Your task to perform on an android device: Search for energizer triple a on bestbuy, select the first entry, and add it to the cart. Image 0: 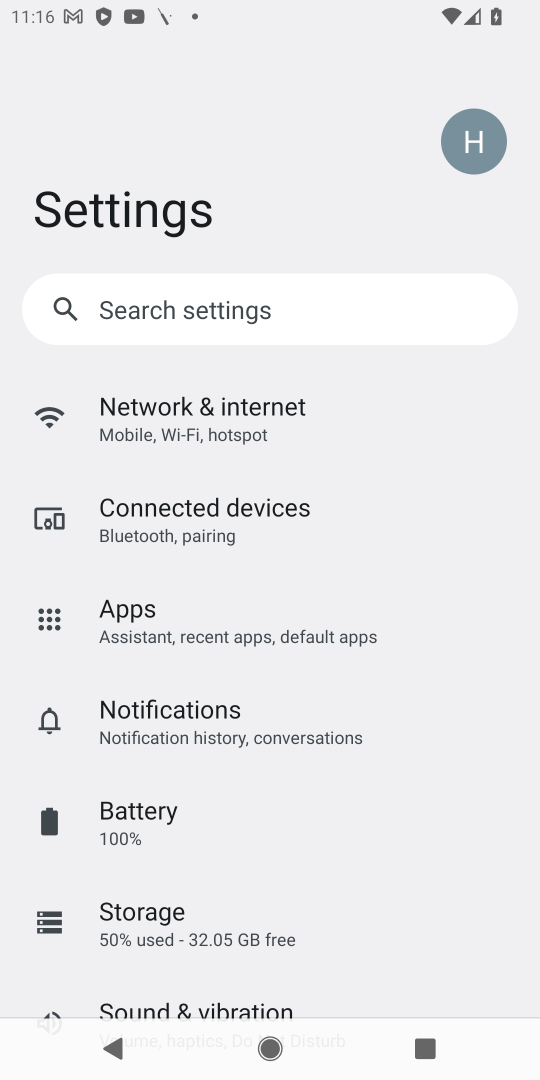
Step 0: press home button
Your task to perform on an android device: Search for energizer triple a on bestbuy, select the first entry, and add it to the cart. Image 1: 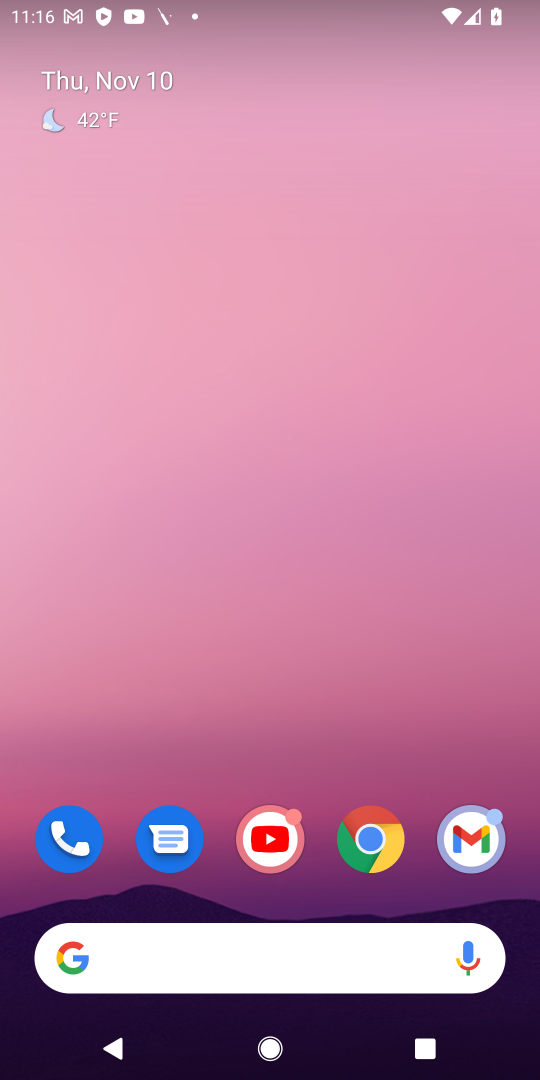
Step 1: click (378, 838)
Your task to perform on an android device: Search for energizer triple a on bestbuy, select the first entry, and add it to the cart. Image 2: 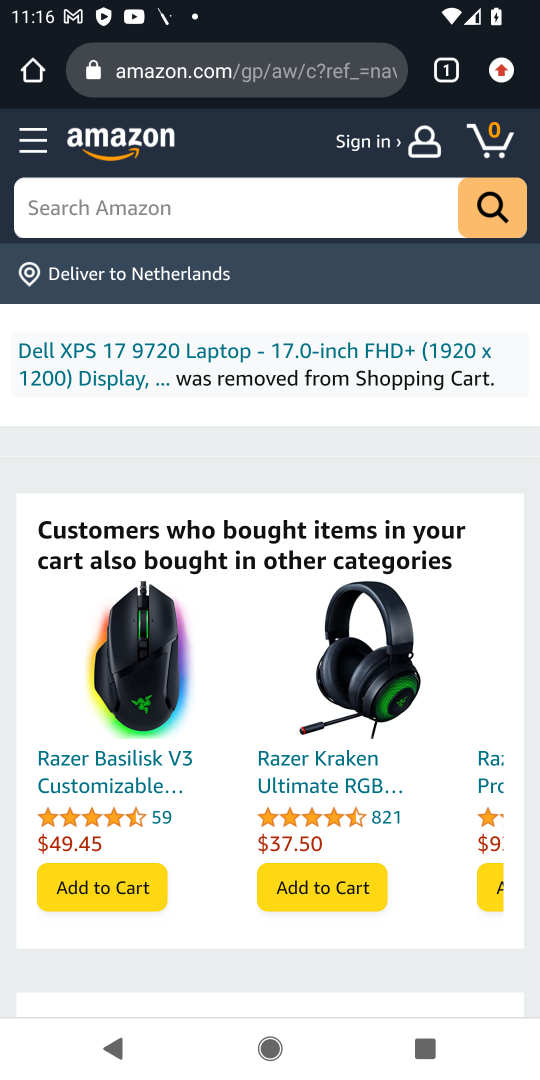
Step 2: click (203, 60)
Your task to perform on an android device: Search for energizer triple a on bestbuy, select the first entry, and add it to the cart. Image 3: 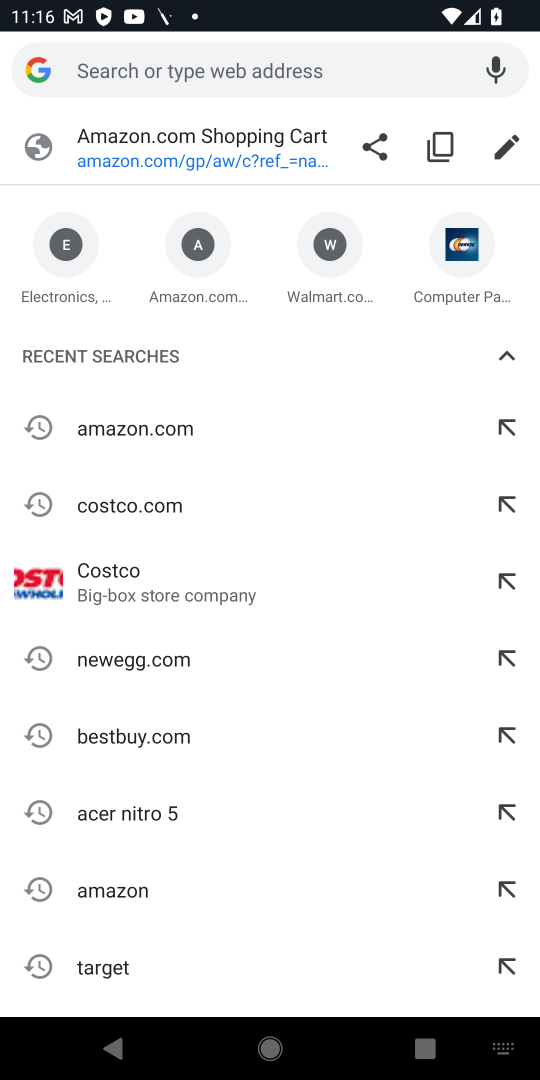
Step 3: click (147, 730)
Your task to perform on an android device: Search for energizer triple a on bestbuy, select the first entry, and add it to the cart. Image 4: 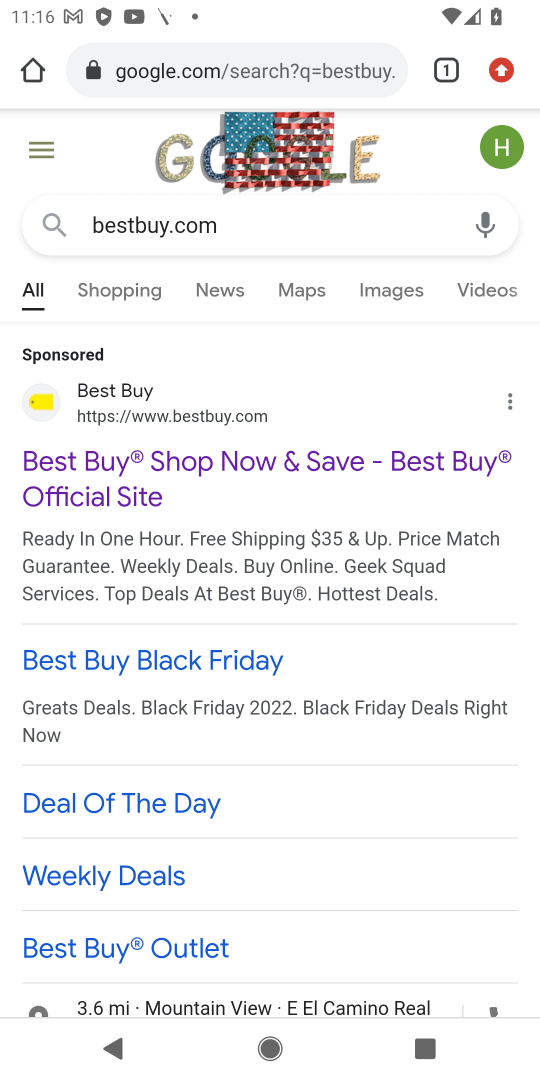
Step 4: click (157, 407)
Your task to perform on an android device: Search for energizer triple a on bestbuy, select the first entry, and add it to the cart. Image 5: 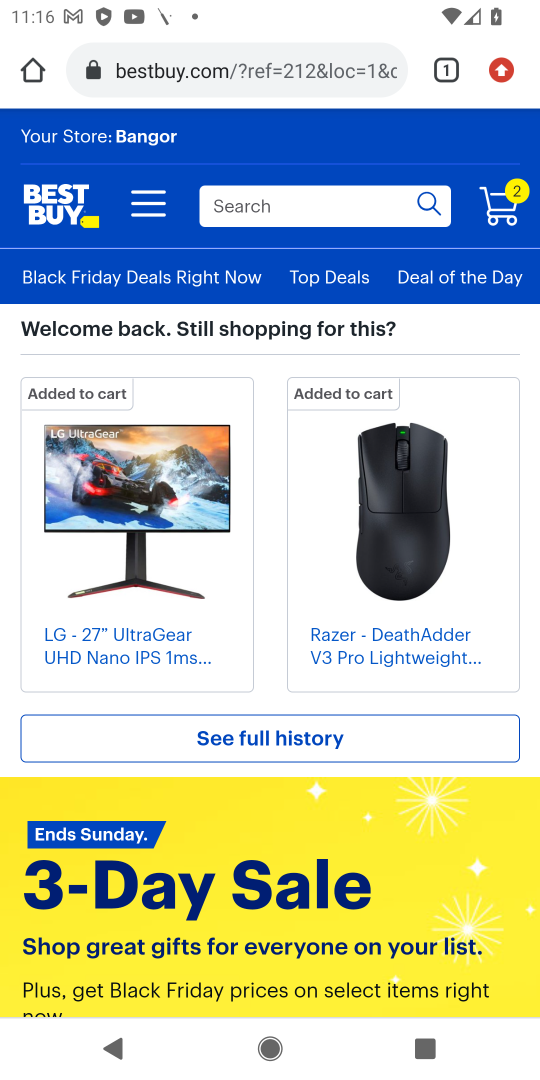
Step 5: click (331, 192)
Your task to perform on an android device: Search for energizer triple a on bestbuy, select the first entry, and add it to the cart. Image 6: 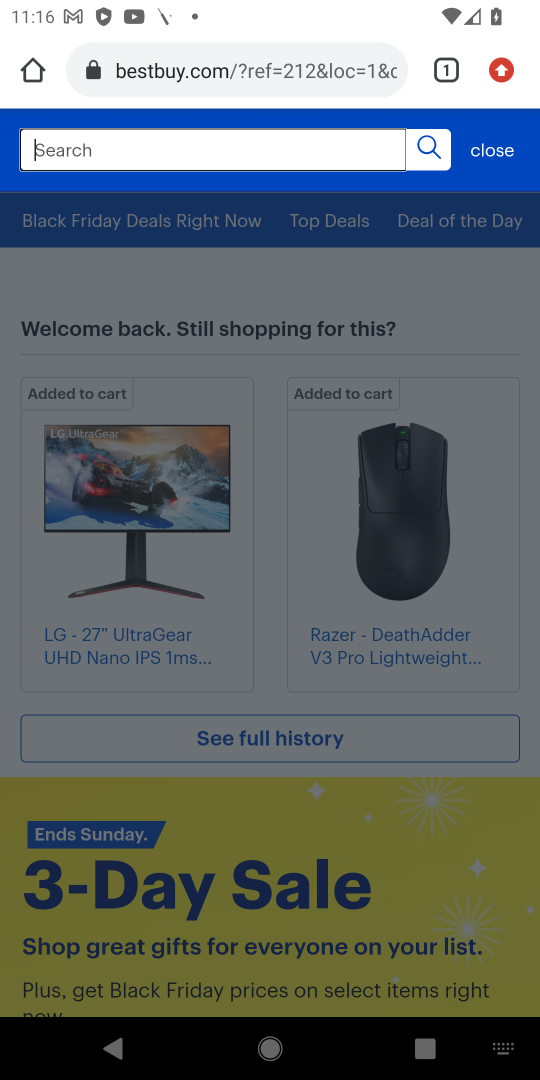
Step 6: type "energizer triple a "
Your task to perform on an android device: Search for energizer triple a on bestbuy, select the first entry, and add it to the cart. Image 7: 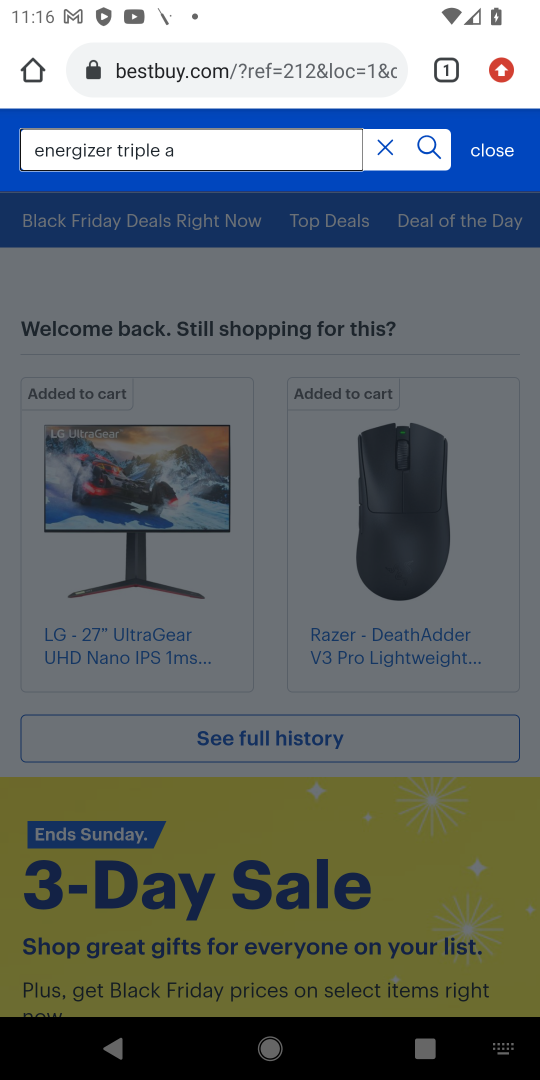
Step 7: click (419, 138)
Your task to perform on an android device: Search for energizer triple a on bestbuy, select the first entry, and add it to the cart. Image 8: 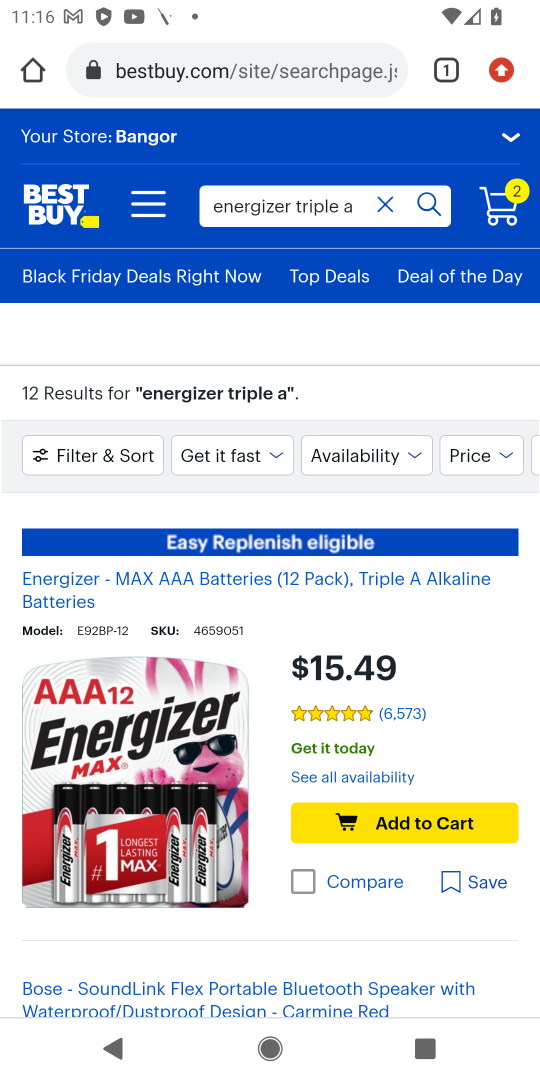
Step 8: click (172, 721)
Your task to perform on an android device: Search for energizer triple a on bestbuy, select the first entry, and add it to the cart. Image 9: 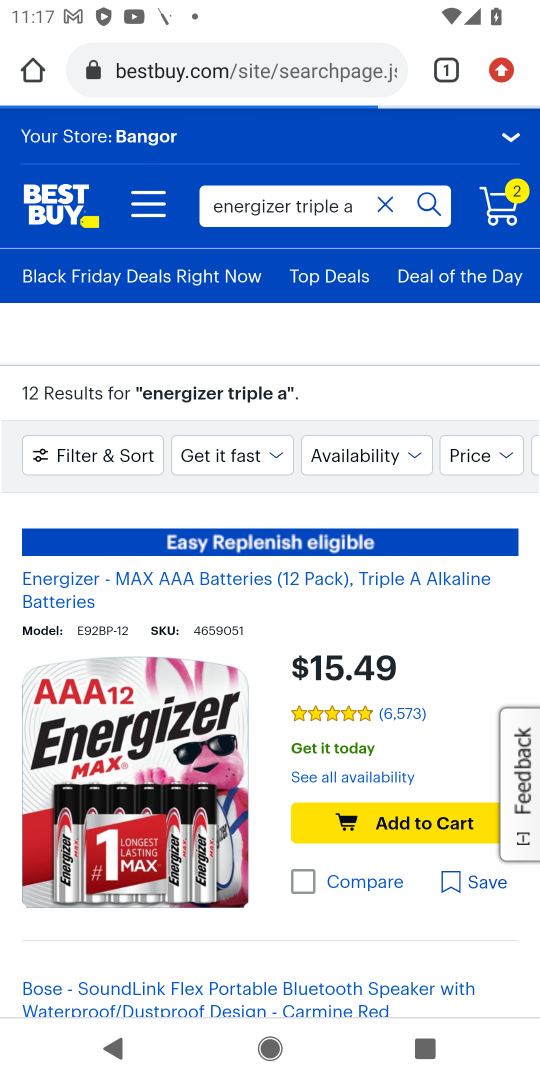
Step 9: click (167, 753)
Your task to perform on an android device: Search for energizer triple a on bestbuy, select the first entry, and add it to the cart. Image 10: 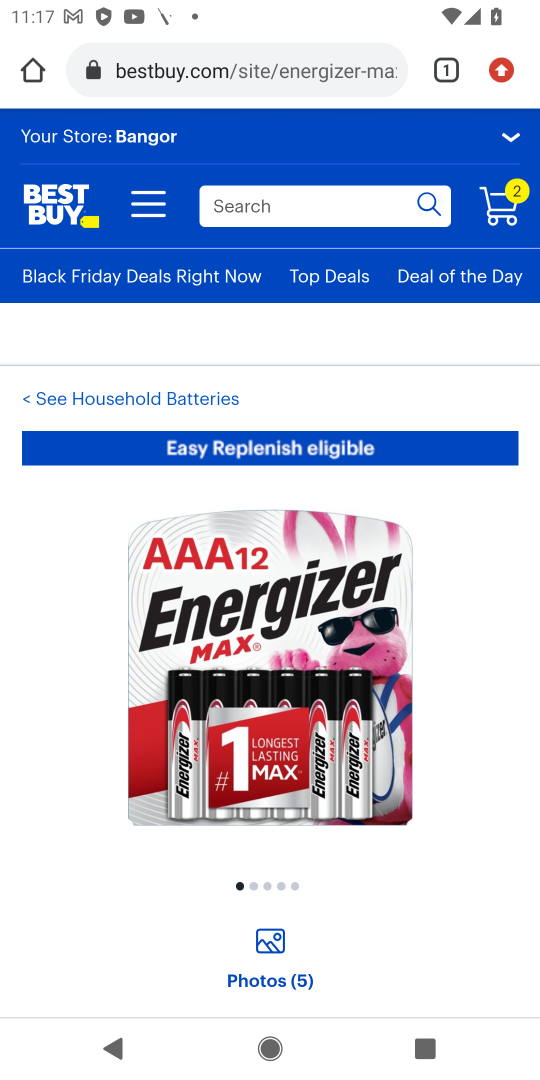
Step 10: drag from (446, 779) to (533, 208)
Your task to perform on an android device: Search for energizer triple a on bestbuy, select the first entry, and add it to the cart. Image 11: 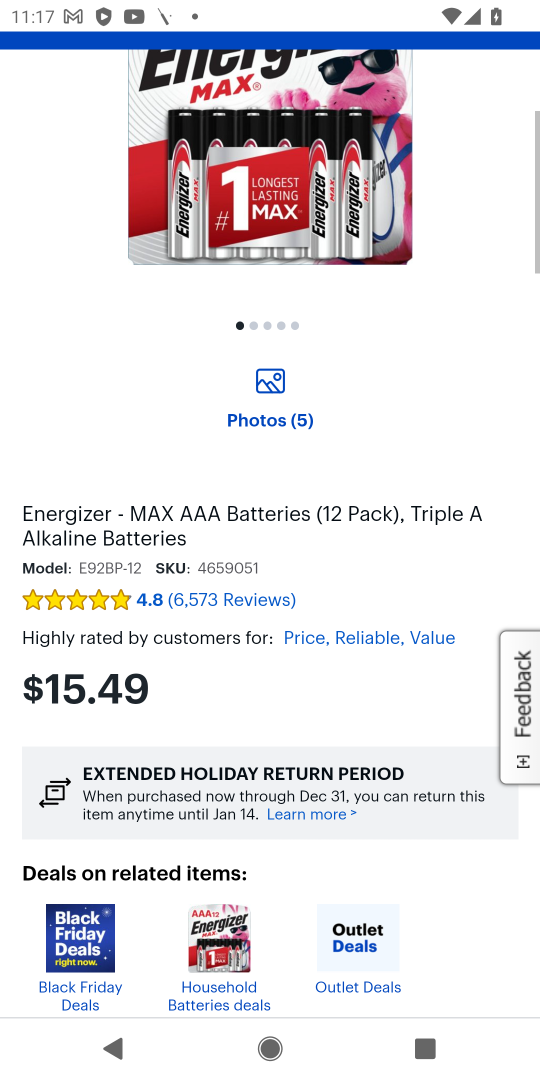
Step 11: drag from (408, 874) to (536, 271)
Your task to perform on an android device: Search for energizer triple a on bestbuy, select the first entry, and add it to the cart. Image 12: 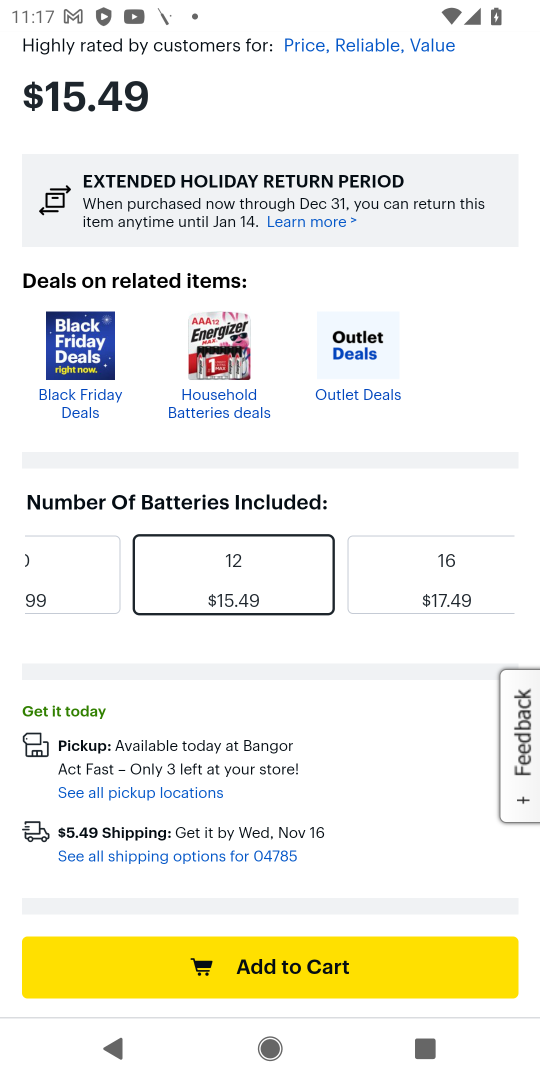
Step 12: click (313, 957)
Your task to perform on an android device: Search for energizer triple a on bestbuy, select the first entry, and add it to the cart. Image 13: 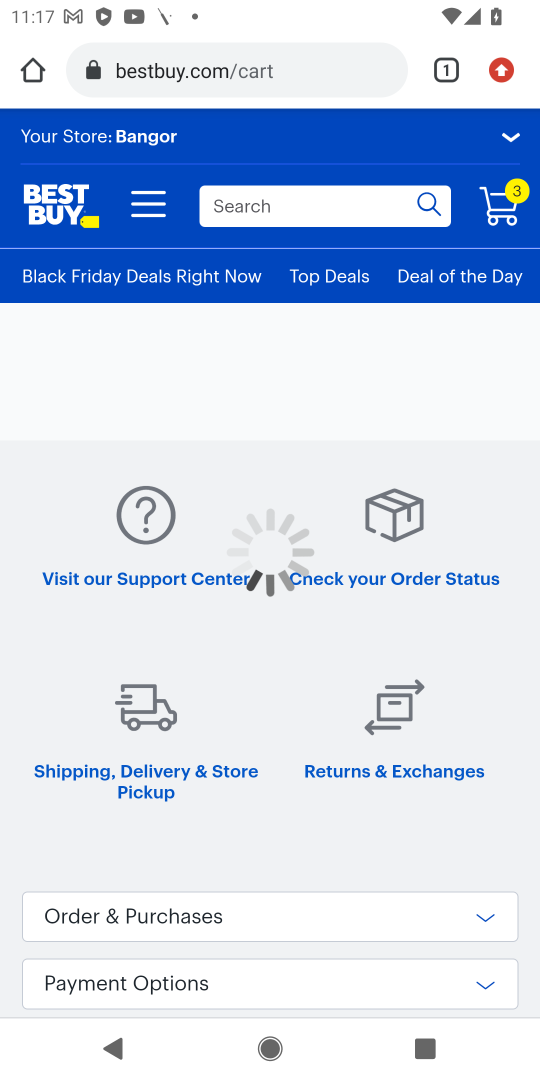
Step 13: task complete